Your task to perform on an android device: Show me the alarms in the clock app Image 0: 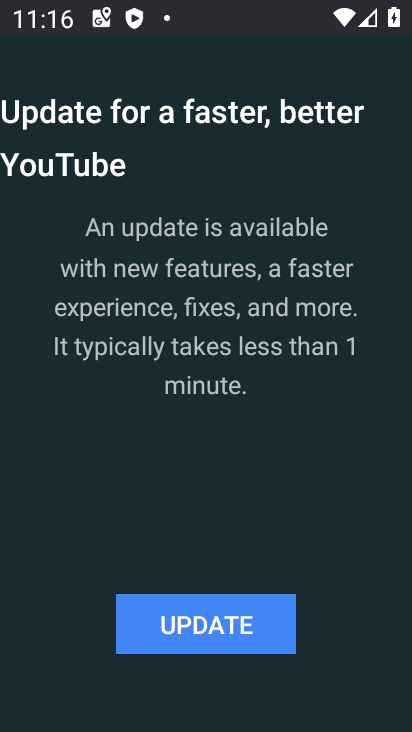
Step 0: press home button
Your task to perform on an android device: Show me the alarms in the clock app Image 1: 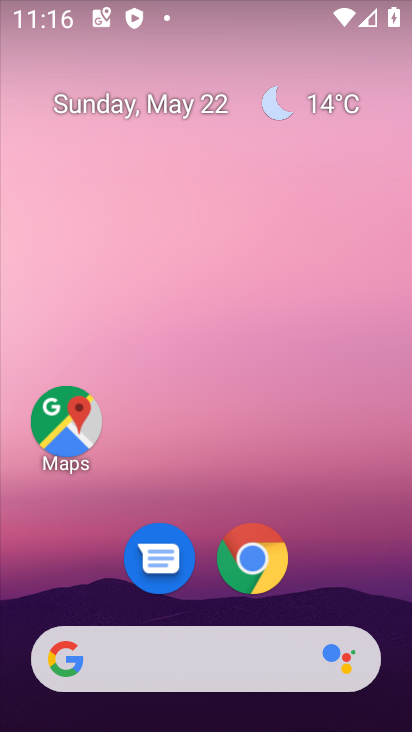
Step 1: drag from (322, 610) to (332, 19)
Your task to perform on an android device: Show me the alarms in the clock app Image 2: 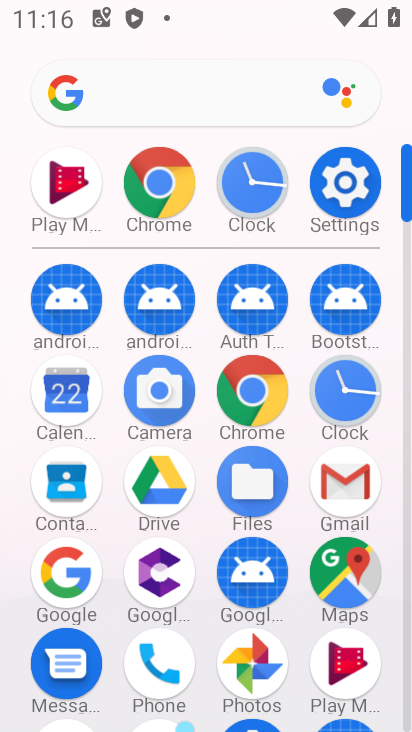
Step 2: click (258, 183)
Your task to perform on an android device: Show me the alarms in the clock app Image 3: 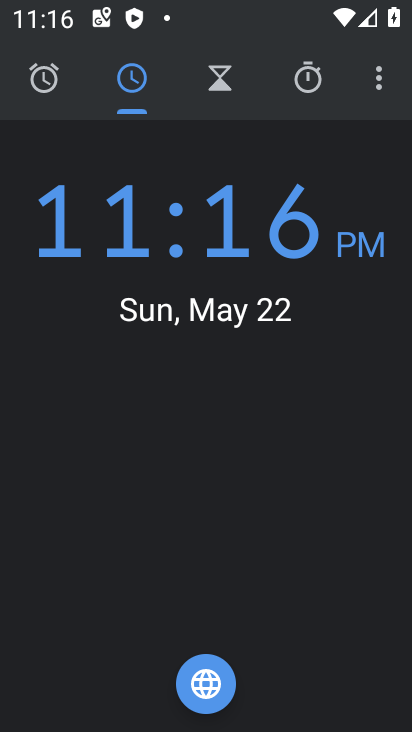
Step 3: click (42, 90)
Your task to perform on an android device: Show me the alarms in the clock app Image 4: 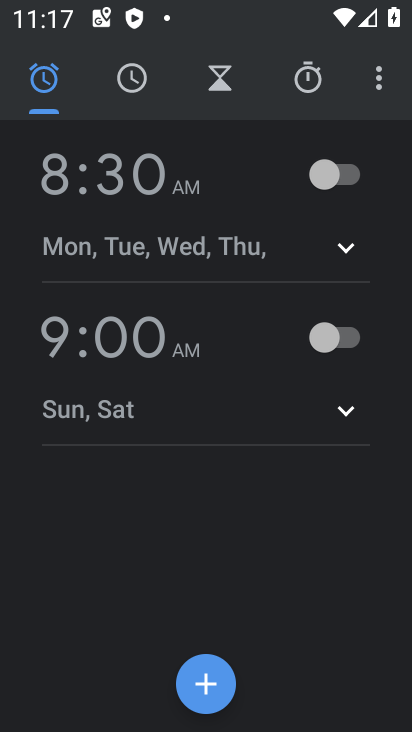
Step 4: task complete